Your task to perform on an android device: Turn on the flashlight Image 0: 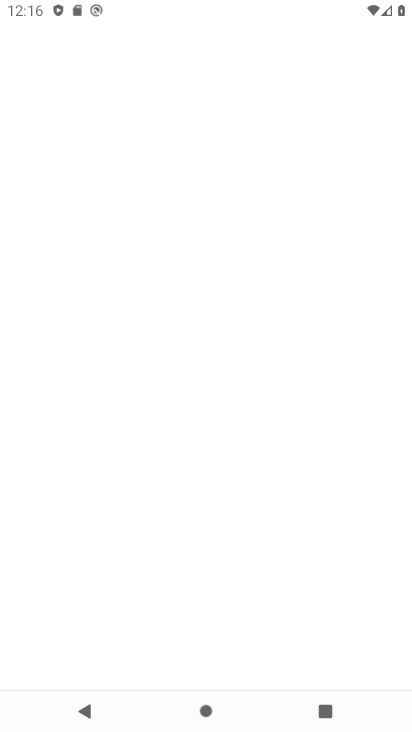
Step 0: press home button
Your task to perform on an android device: Turn on the flashlight Image 1: 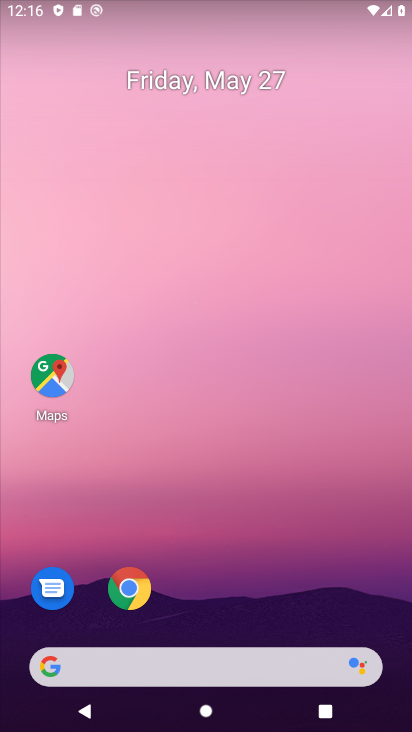
Step 1: task complete